Your task to perform on an android device: see tabs open on other devices in the chrome app Image 0: 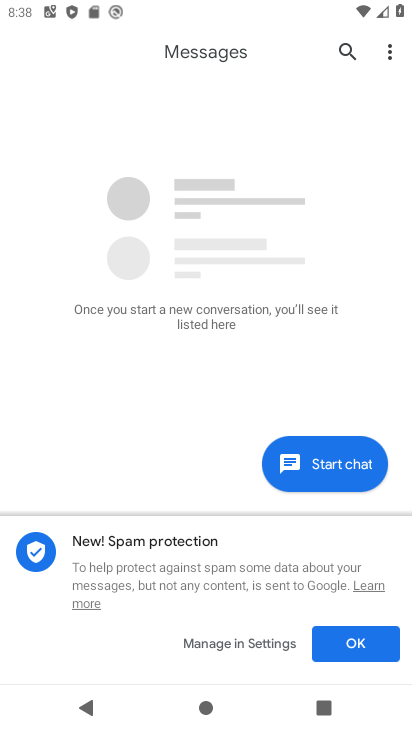
Step 0: press home button
Your task to perform on an android device: see tabs open on other devices in the chrome app Image 1: 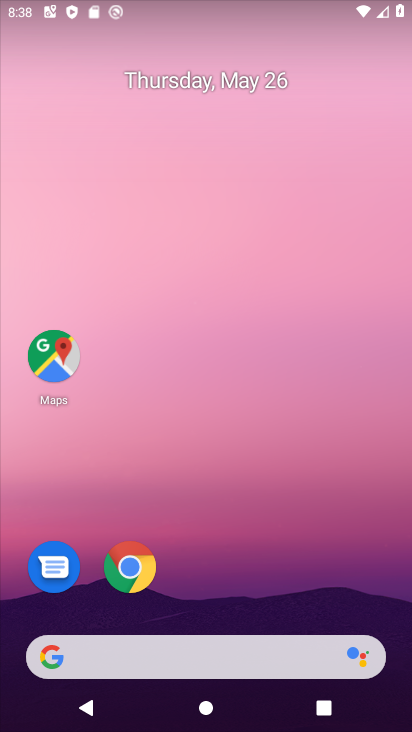
Step 1: click (137, 573)
Your task to perform on an android device: see tabs open on other devices in the chrome app Image 2: 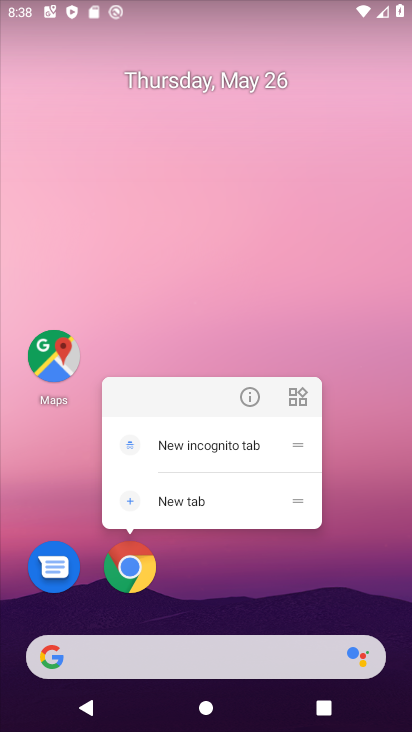
Step 2: click (142, 572)
Your task to perform on an android device: see tabs open on other devices in the chrome app Image 3: 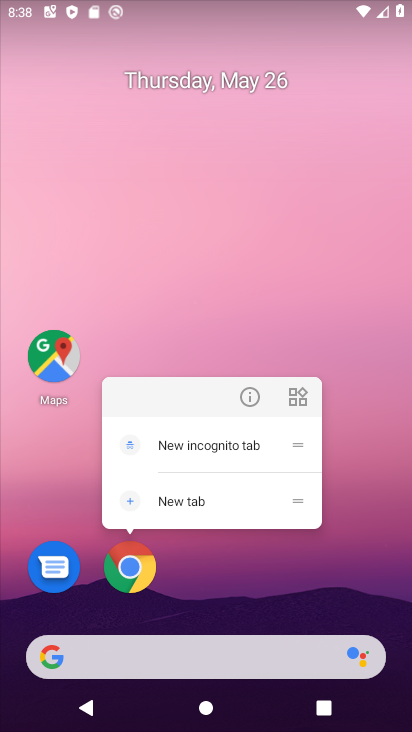
Step 3: click (124, 565)
Your task to perform on an android device: see tabs open on other devices in the chrome app Image 4: 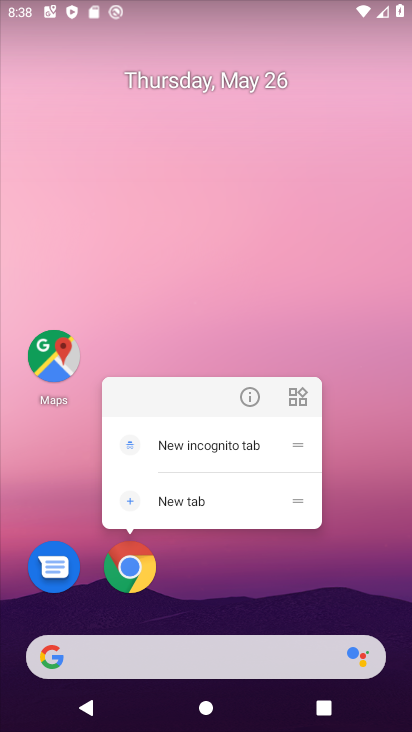
Step 4: click (125, 569)
Your task to perform on an android device: see tabs open on other devices in the chrome app Image 5: 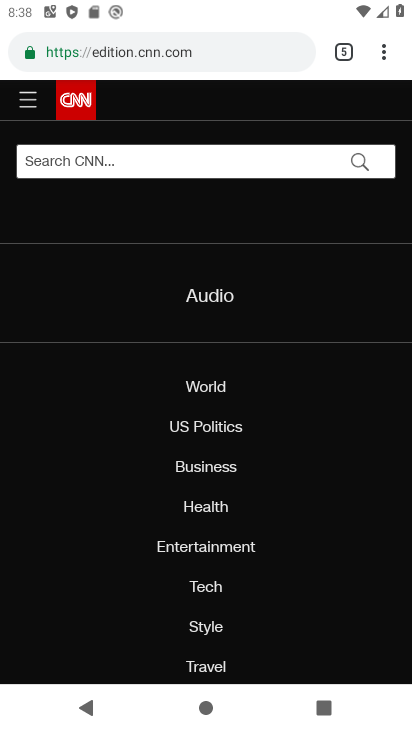
Step 5: task complete